Your task to perform on an android device: read, delete, or share a saved page in the chrome app Image 0: 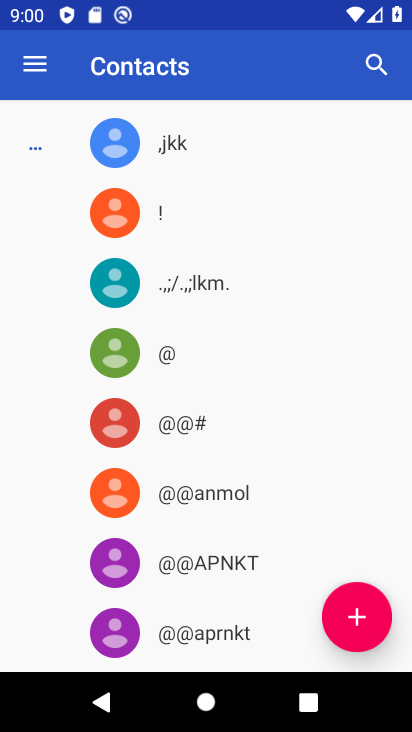
Step 0: press home button
Your task to perform on an android device: read, delete, or share a saved page in the chrome app Image 1: 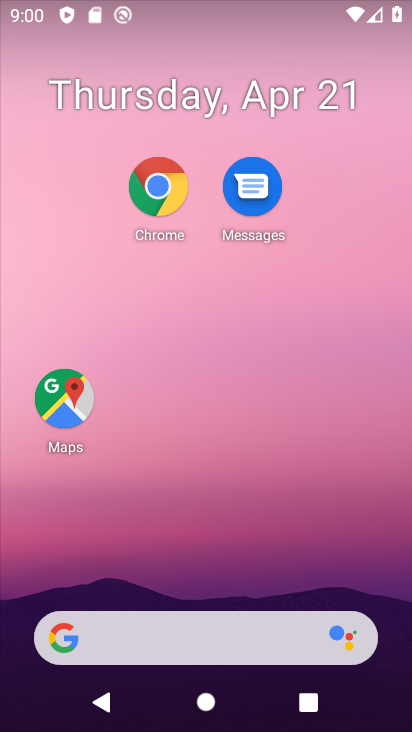
Step 1: click (152, 190)
Your task to perform on an android device: read, delete, or share a saved page in the chrome app Image 2: 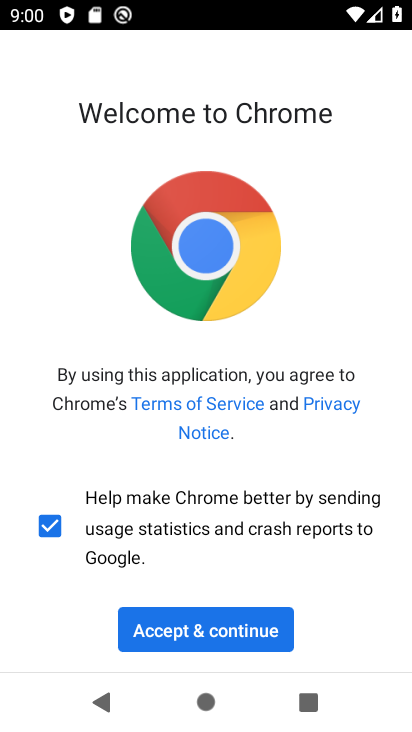
Step 2: click (230, 614)
Your task to perform on an android device: read, delete, or share a saved page in the chrome app Image 3: 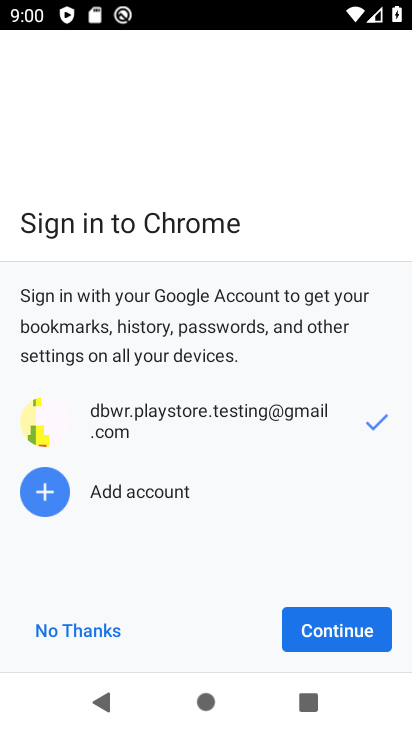
Step 3: click (303, 630)
Your task to perform on an android device: read, delete, or share a saved page in the chrome app Image 4: 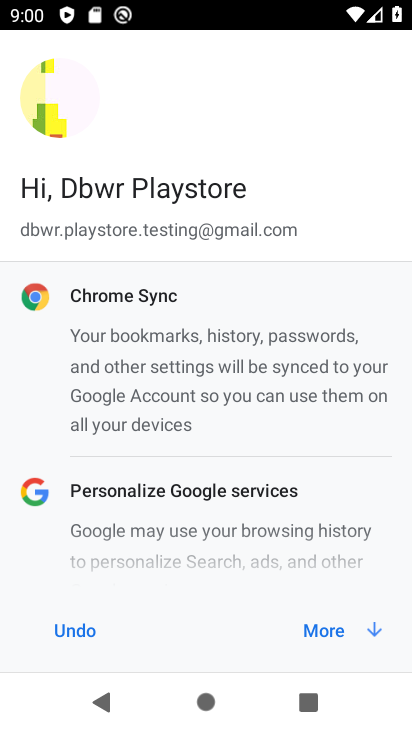
Step 4: click (303, 630)
Your task to perform on an android device: read, delete, or share a saved page in the chrome app Image 5: 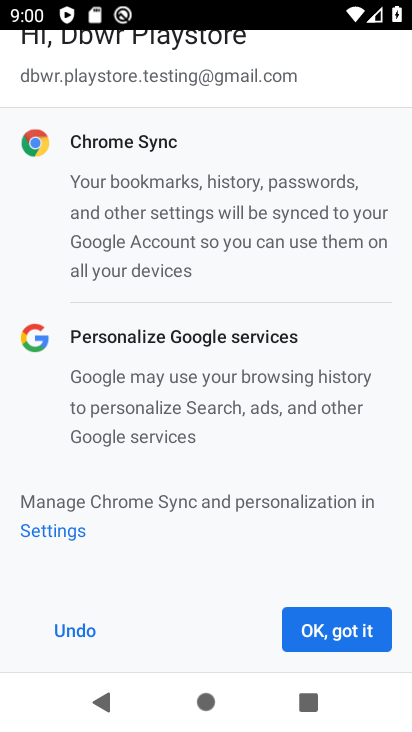
Step 5: click (303, 630)
Your task to perform on an android device: read, delete, or share a saved page in the chrome app Image 6: 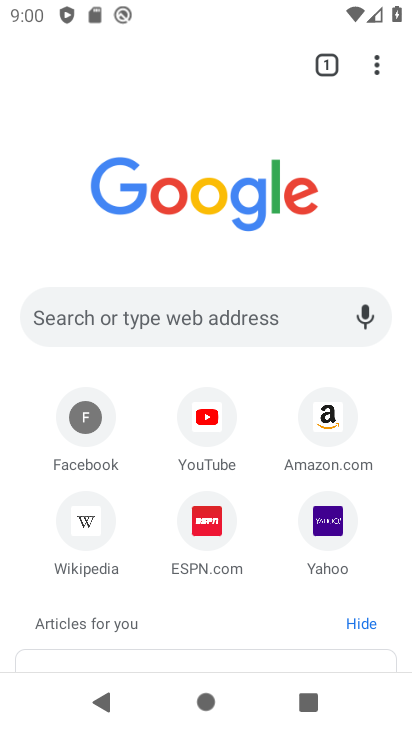
Step 6: click (379, 62)
Your task to perform on an android device: read, delete, or share a saved page in the chrome app Image 7: 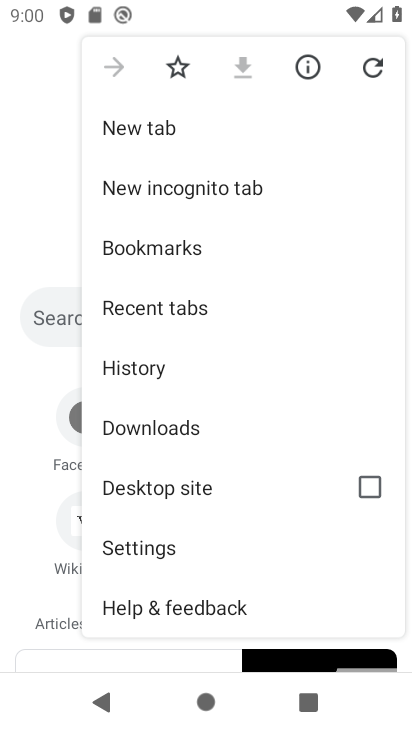
Step 7: click (154, 435)
Your task to perform on an android device: read, delete, or share a saved page in the chrome app Image 8: 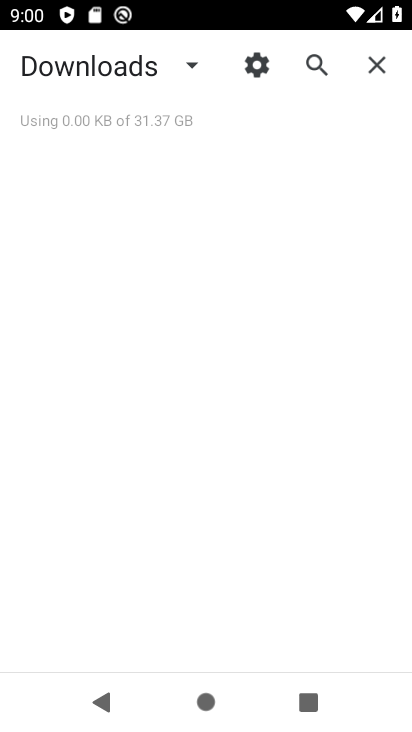
Step 8: click (187, 64)
Your task to perform on an android device: read, delete, or share a saved page in the chrome app Image 9: 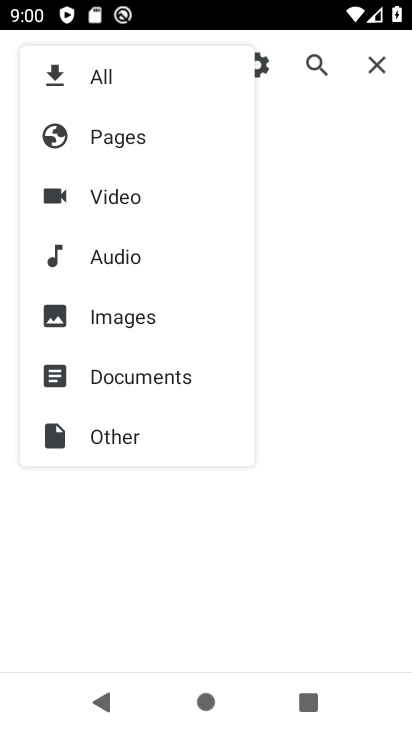
Step 9: click (121, 139)
Your task to perform on an android device: read, delete, or share a saved page in the chrome app Image 10: 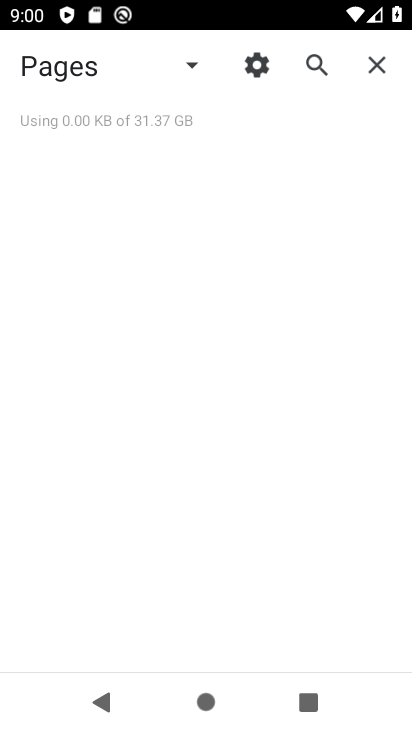
Step 10: task complete